Your task to perform on an android device: turn on bluetooth scan Image 0: 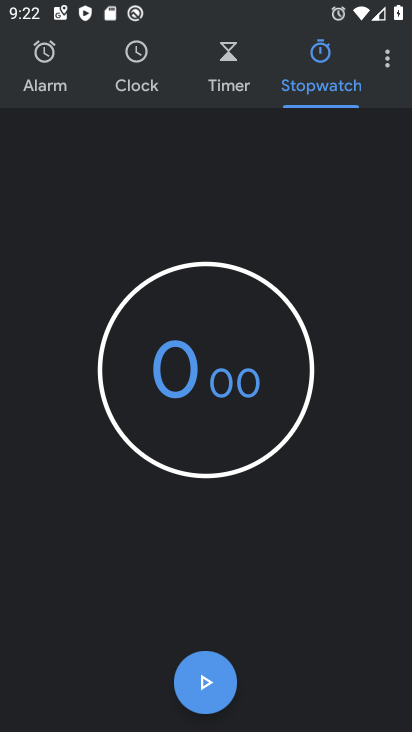
Step 0: click (391, 629)
Your task to perform on an android device: turn on bluetooth scan Image 1: 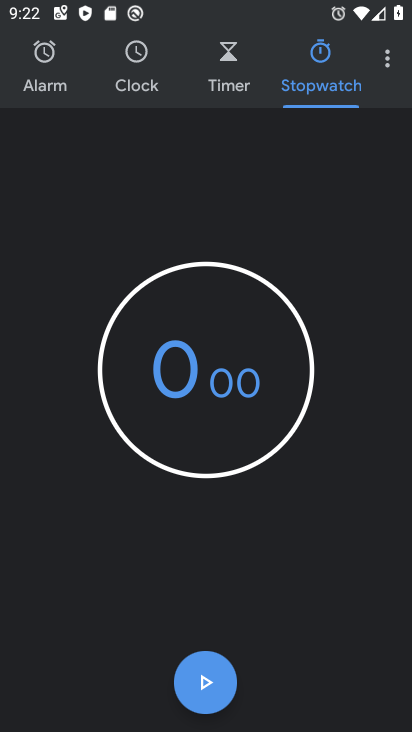
Step 1: drag from (387, 573) to (387, 420)
Your task to perform on an android device: turn on bluetooth scan Image 2: 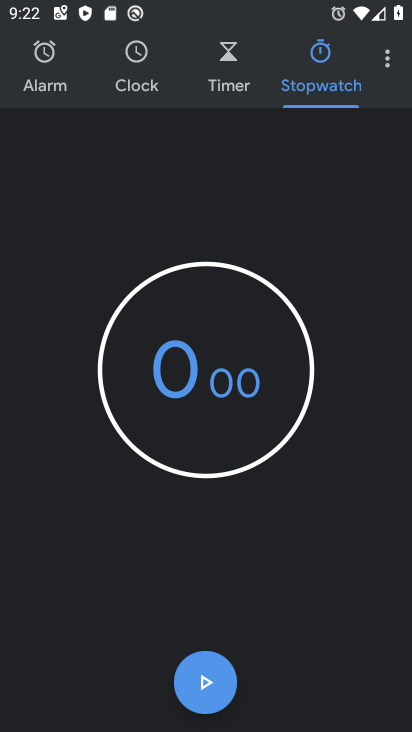
Step 2: press home button
Your task to perform on an android device: turn on bluetooth scan Image 3: 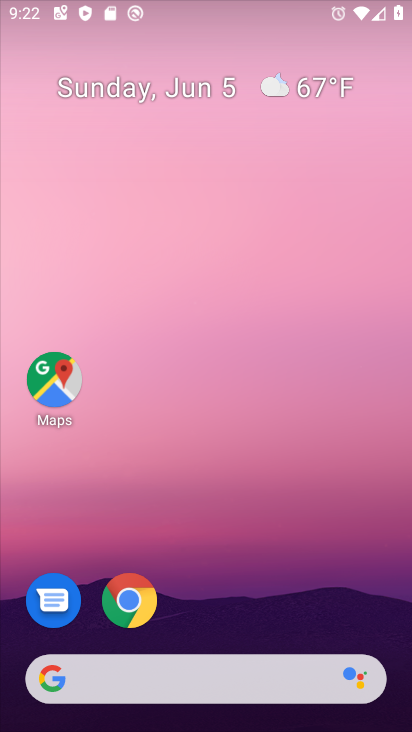
Step 3: drag from (394, 646) to (293, 65)
Your task to perform on an android device: turn on bluetooth scan Image 4: 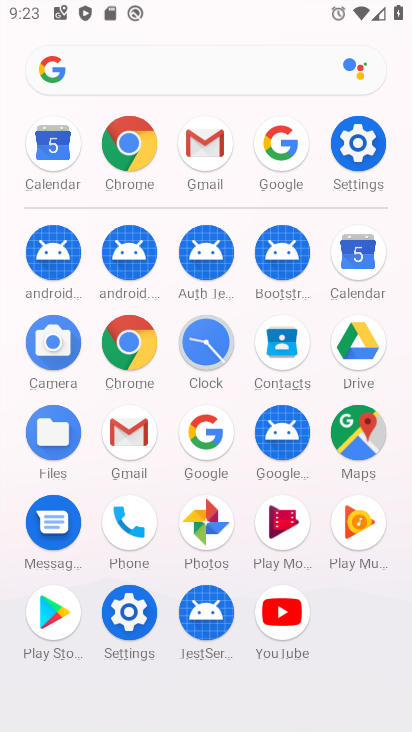
Step 4: click (96, 630)
Your task to perform on an android device: turn on bluetooth scan Image 5: 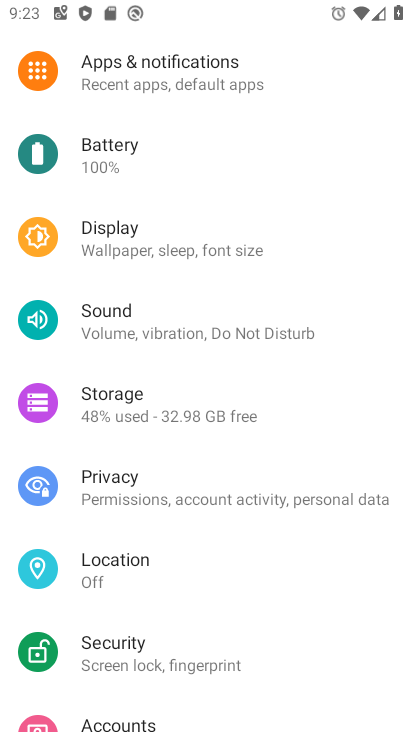
Step 5: click (148, 573)
Your task to perform on an android device: turn on bluetooth scan Image 6: 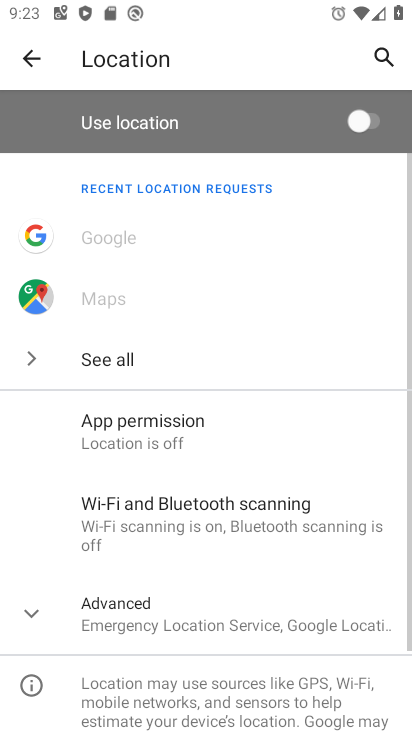
Step 6: click (176, 516)
Your task to perform on an android device: turn on bluetooth scan Image 7: 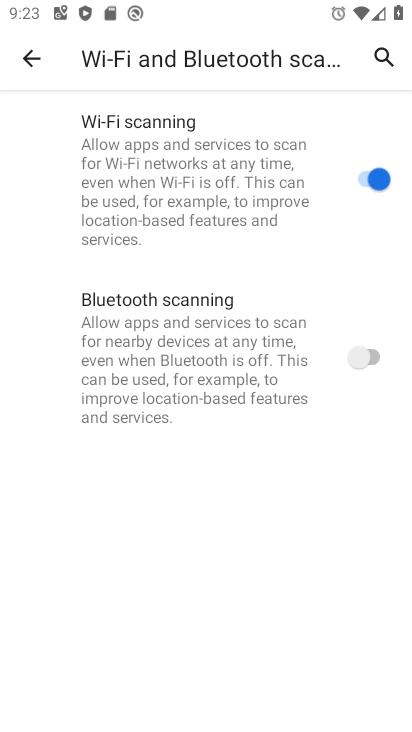
Step 7: click (336, 359)
Your task to perform on an android device: turn on bluetooth scan Image 8: 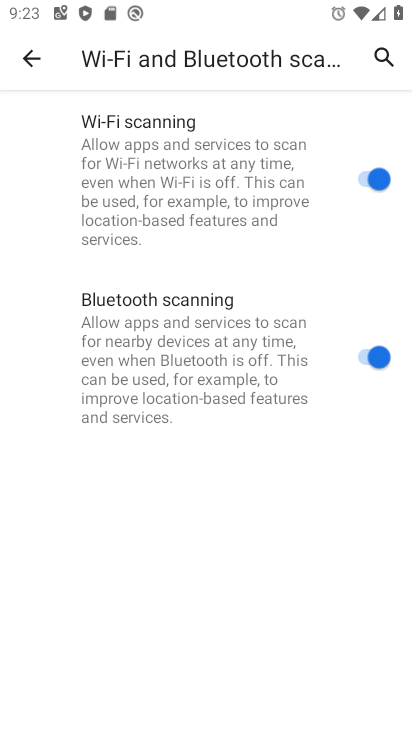
Step 8: task complete